Your task to perform on an android device: snooze an email in the gmail app Image 0: 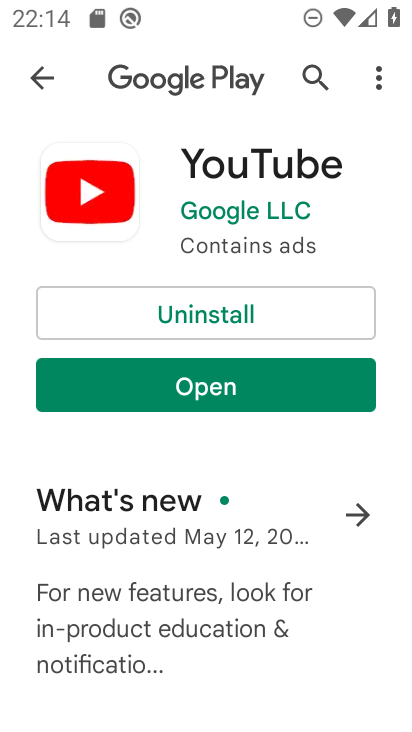
Step 0: press home button
Your task to perform on an android device: snooze an email in the gmail app Image 1: 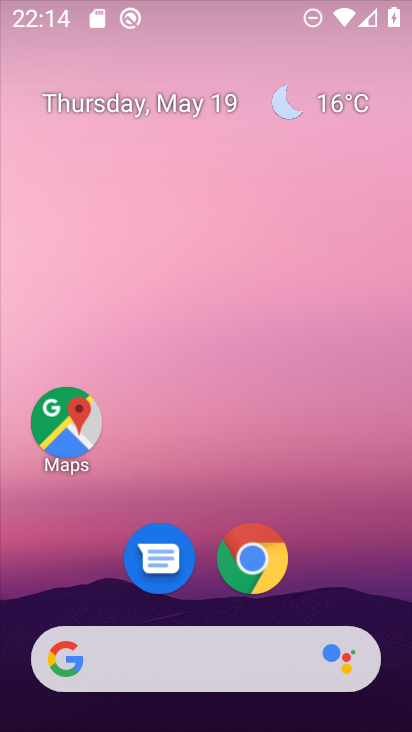
Step 1: drag from (210, 722) to (206, 260)
Your task to perform on an android device: snooze an email in the gmail app Image 2: 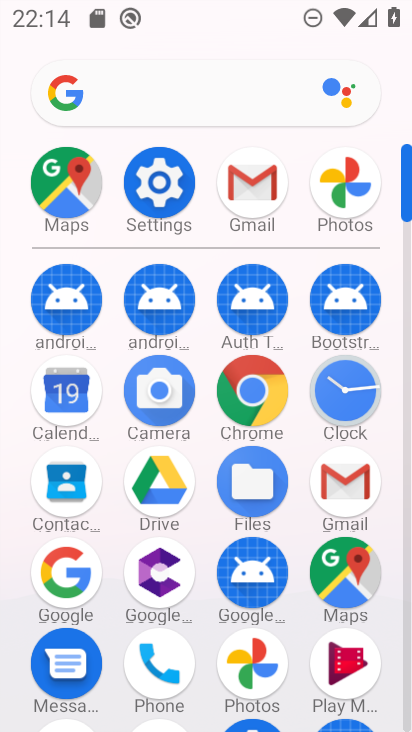
Step 2: click (345, 475)
Your task to perform on an android device: snooze an email in the gmail app Image 3: 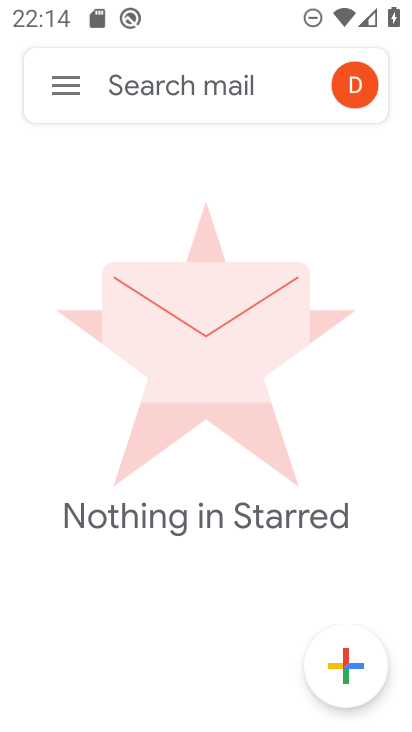
Step 3: click (49, 85)
Your task to perform on an android device: snooze an email in the gmail app Image 4: 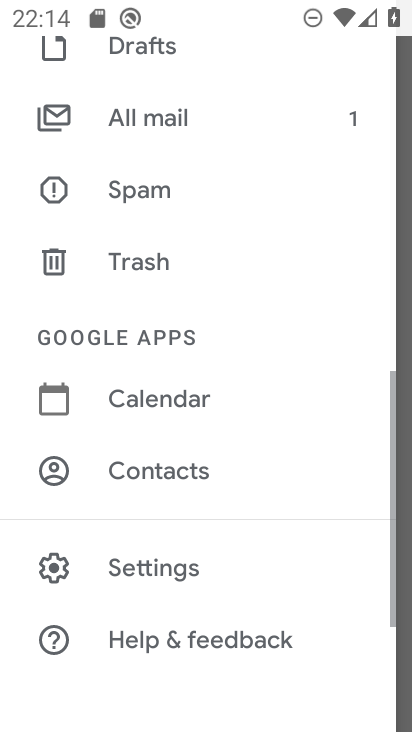
Step 4: drag from (126, 119) to (151, 570)
Your task to perform on an android device: snooze an email in the gmail app Image 5: 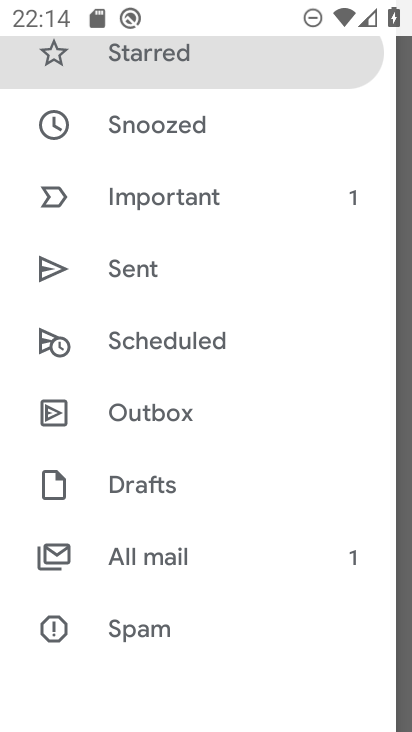
Step 5: drag from (190, 164) to (215, 559)
Your task to perform on an android device: snooze an email in the gmail app Image 6: 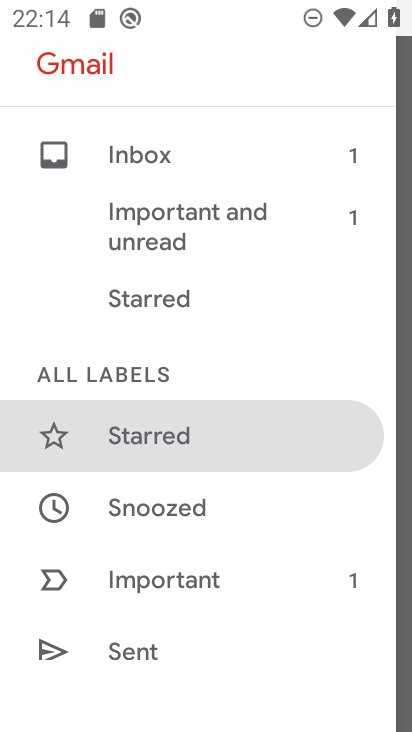
Step 6: click (133, 141)
Your task to perform on an android device: snooze an email in the gmail app Image 7: 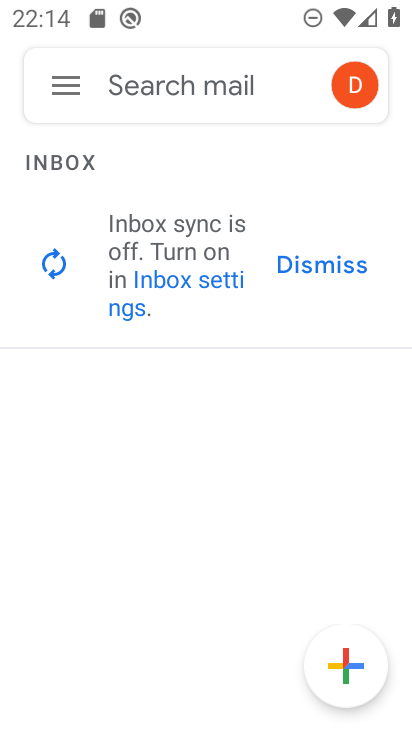
Step 7: task complete